Your task to perform on an android device: change the clock display to show seconds Image 0: 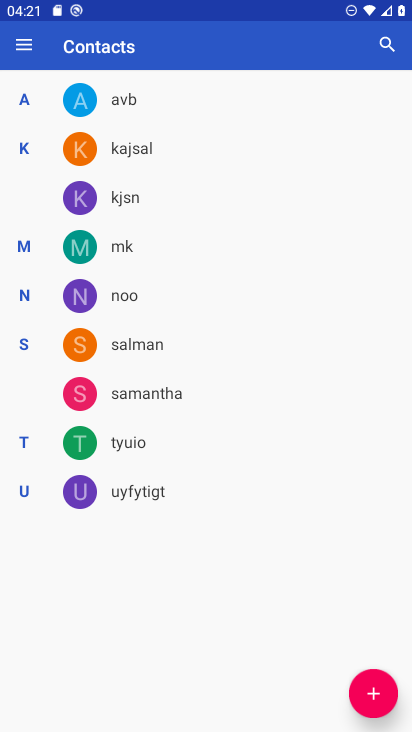
Step 0: press home button
Your task to perform on an android device: change the clock display to show seconds Image 1: 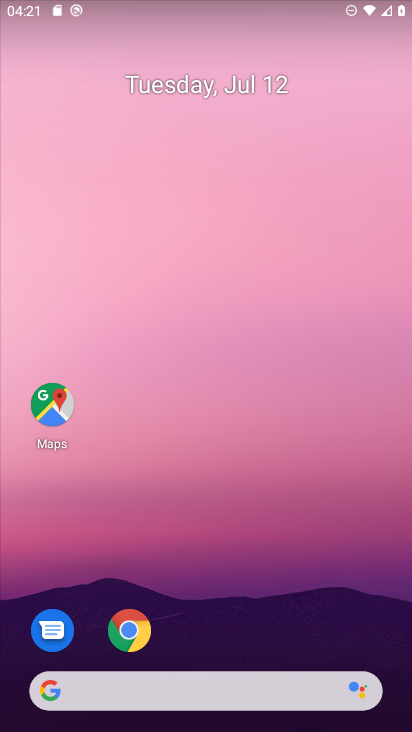
Step 1: drag from (382, 626) to (338, 141)
Your task to perform on an android device: change the clock display to show seconds Image 2: 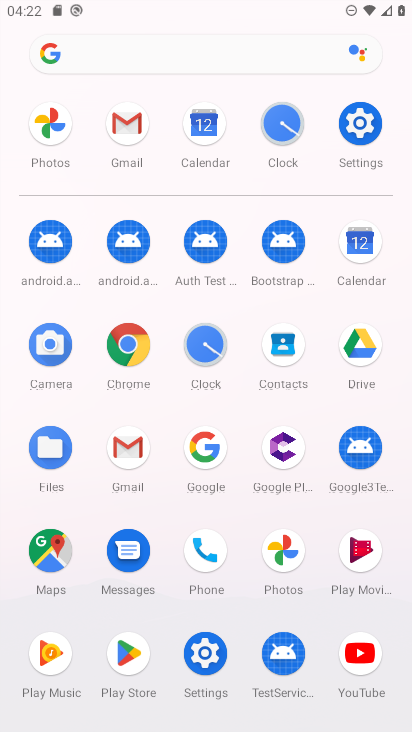
Step 2: click (204, 347)
Your task to perform on an android device: change the clock display to show seconds Image 3: 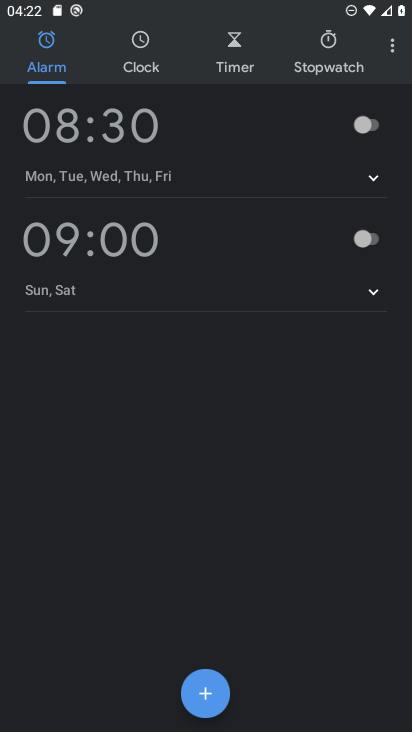
Step 3: click (391, 51)
Your task to perform on an android device: change the clock display to show seconds Image 4: 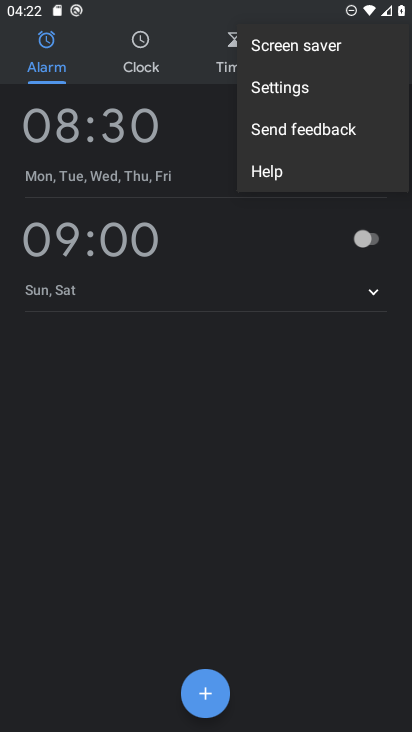
Step 4: click (276, 91)
Your task to perform on an android device: change the clock display to show seconds Image 5: 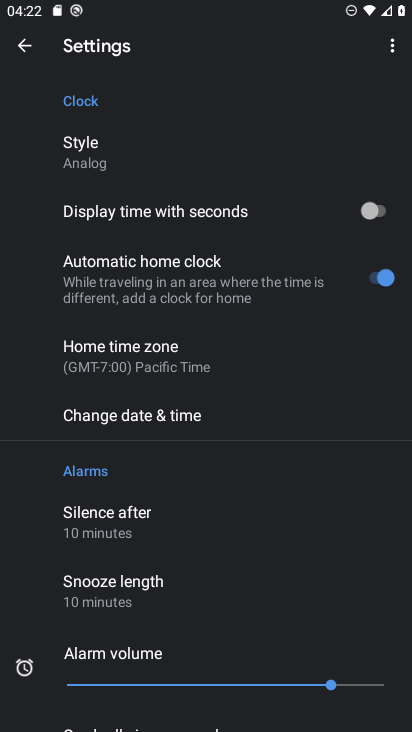
Step 5: click (374, 206)
Your task to perform on an android device: change the clock display to show seconds Image 6: 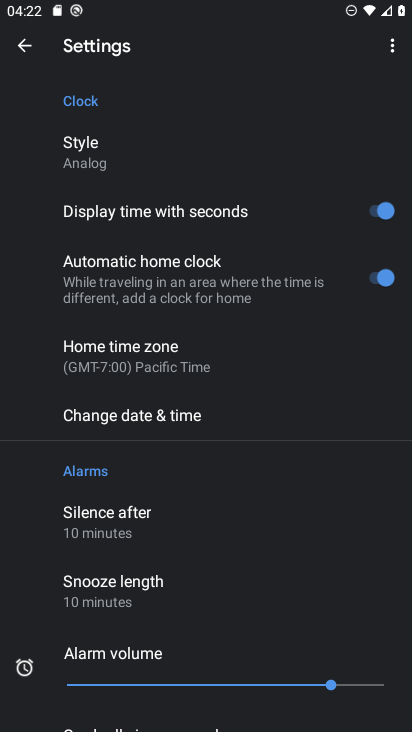
Step 6: task complete